Your task to perform on an android device: change the clock display to show seconds Image 0: 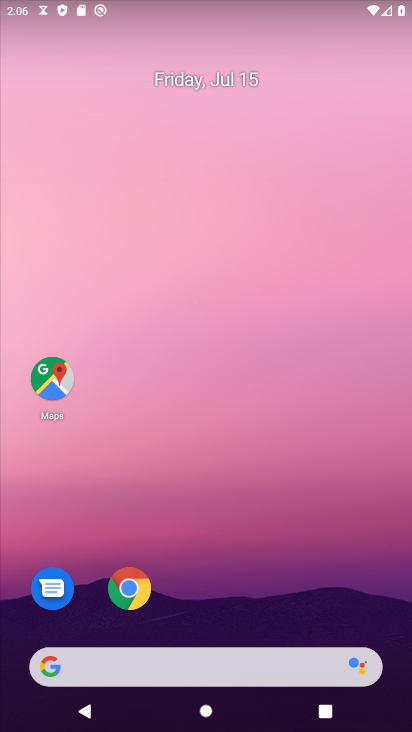
Step 0: drag from (203, 681) to (341, 184)
Your task to perform on an android device: change the clock display to show seconds Image 1: 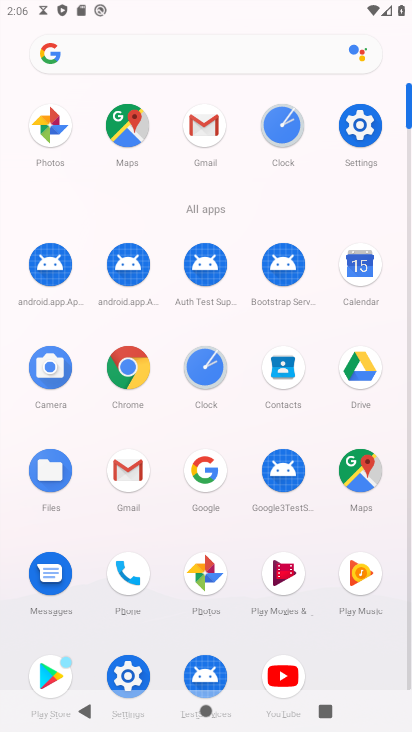
Step 1: click (209, 366)
Your task to perform on an android device: change the clock display to show seconds Image 2: 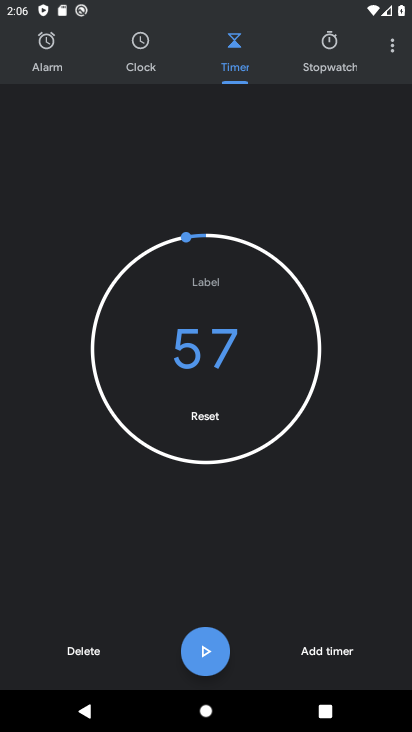
Step 2: click (393, 55)
Your task to perform on an android device: change the clock display to show seconds Image 3: 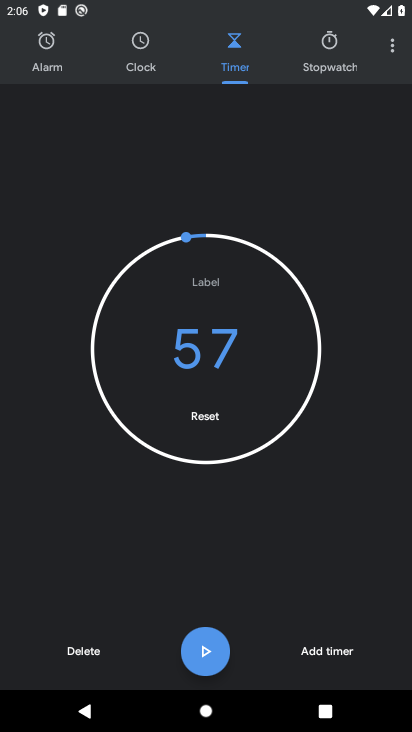
Step 3: click (396, 51)
Your task to perform on an android device: change the clock display to show seconds Image 4: 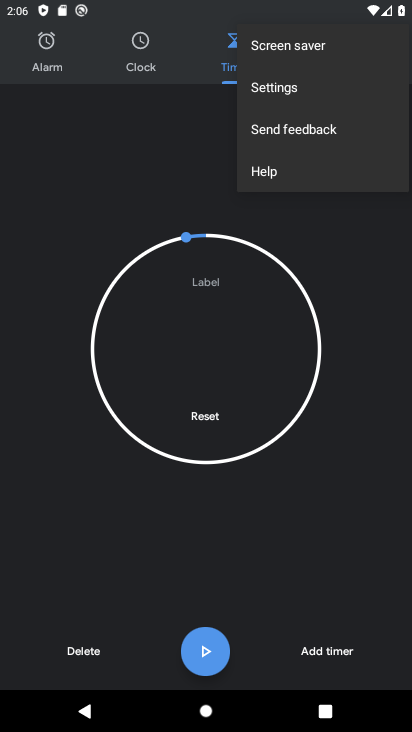
Step 4: click (303, 87)
Your task to perform on an android device: change the clock display to show seconds Image 5: 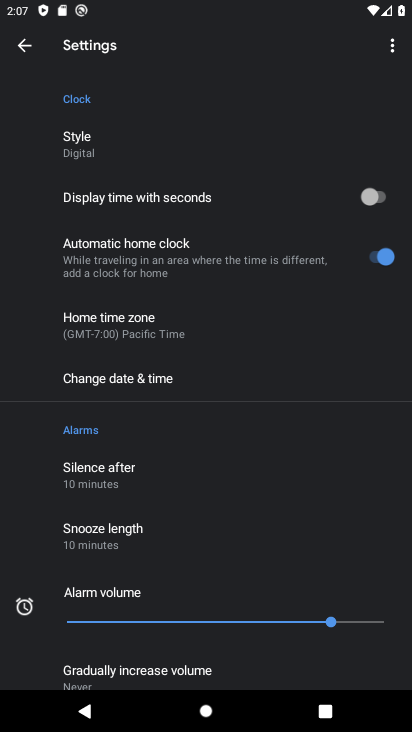
Step 5: click (386, 201)
Your task to perform on an android device: change the clock display to show seconds Image 6: 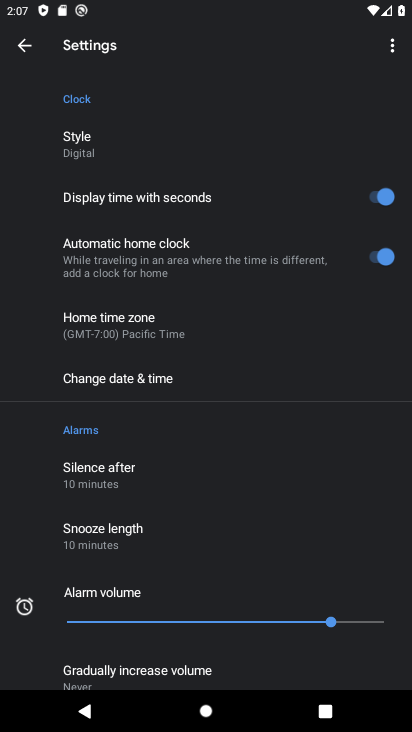
Step 6: task complete